Your task to perform on an android device: turn on wifi Image 0: 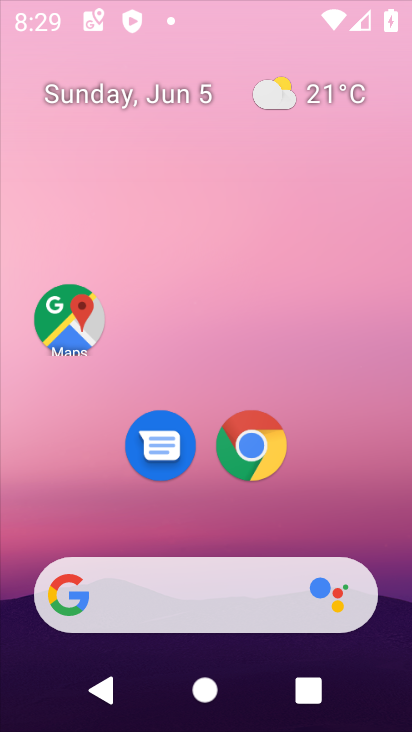
Step 0: press home button
Your task to perform on an android device: turn on wifi Image 1: 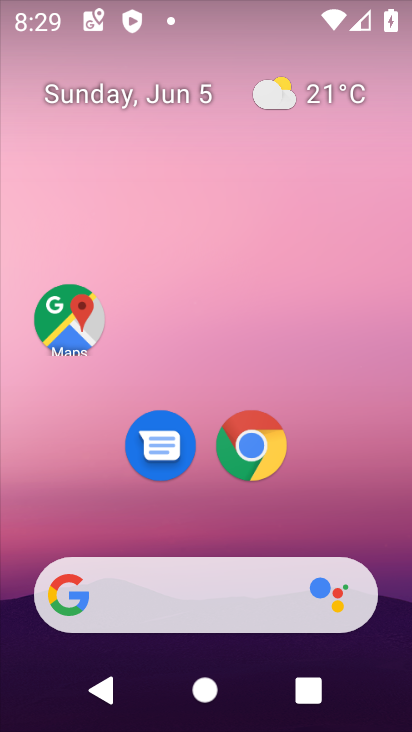
Step 1: drag from (356, 481) to (371, 145)
Your task to perform on an android device: turn on wifi Image 2: 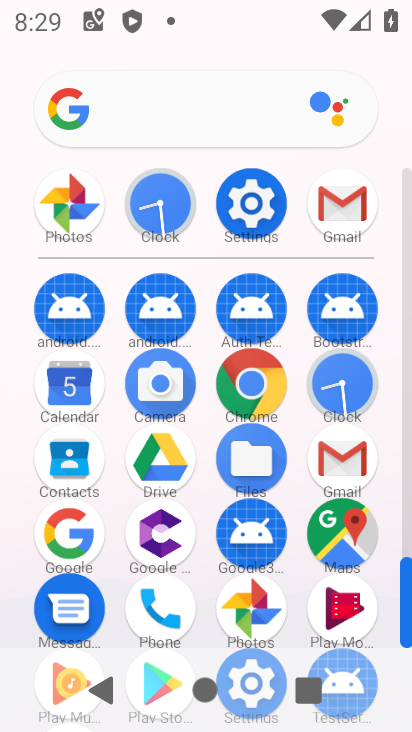
Step 2: click (270, 202)
Your task to perform on an android device: turn on wifi Image 3: 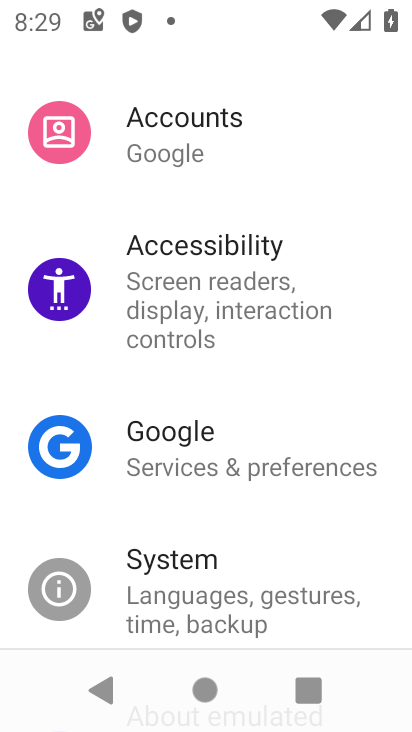
Step 3: drag from (360, 105) to (389, 701)
Your task to perform on an android device: turn on wifi Image 4: 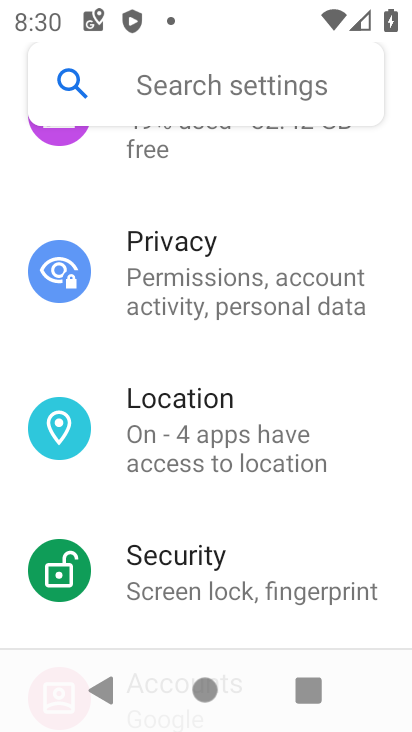
Step 4: drag from (364, 188) to (358, 710)
Your task to perform on an android device: turn on wifi Image 5: 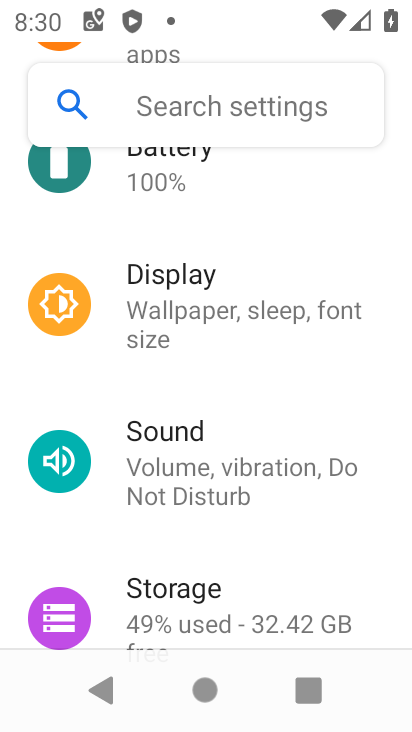
Step 5: drag from (317, 208) to (322, 722)
Your task to perform on an android device: turn on wifi Image 6: 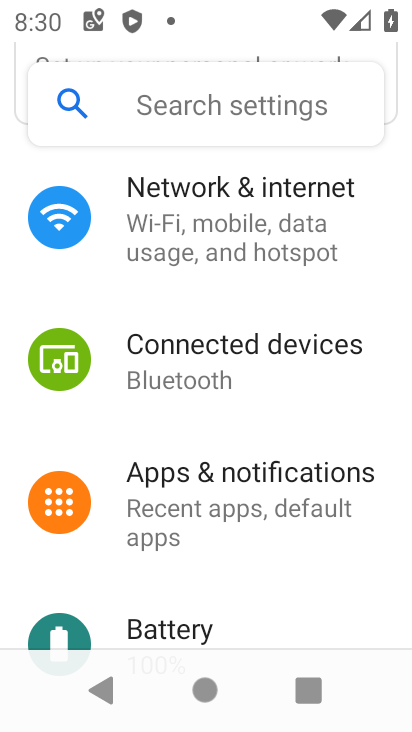
Step 6: click (263, 238)
Your task to perform on an android device: turn on wifi Image 7: 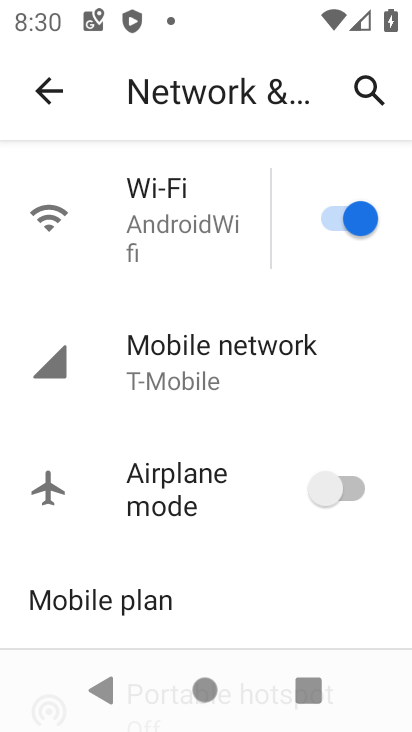
Step 7: task complete